Your task to perform on an android device: change the clock display to show seconds Image 0: 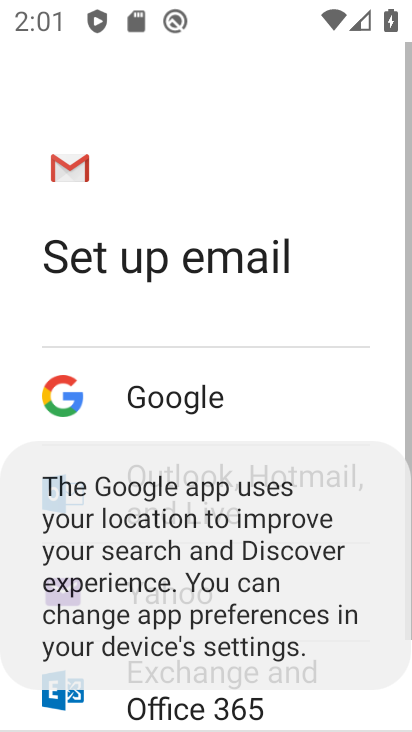
Step 0: press home button
Your task to perform on an android device: change the clock display to show seconds Image 1: 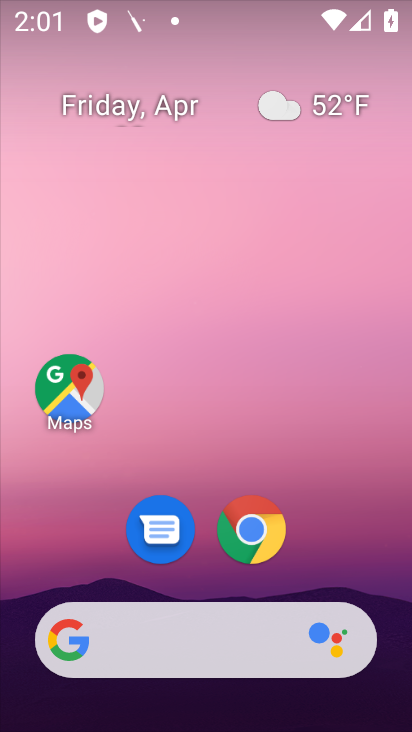
Step 1: drag from (209, 478) to (220, 189)
Your task to perform on an android device: change the clock display to show seconds Image 2: 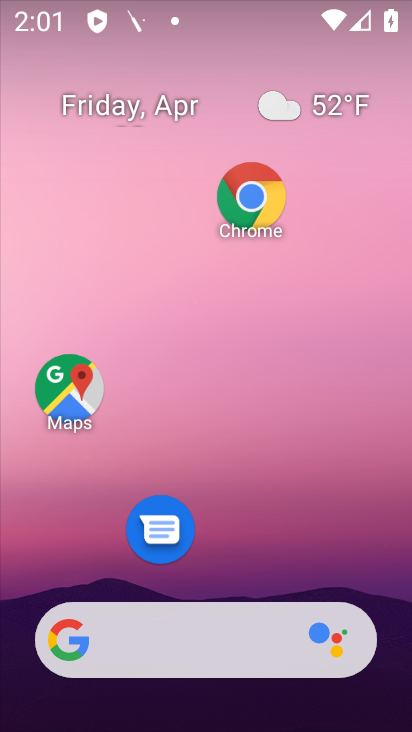
Step 2: drag from (215, 564) to (191, 148)
Your task to perform on an android device: change the clock display to show seconds Image 3: 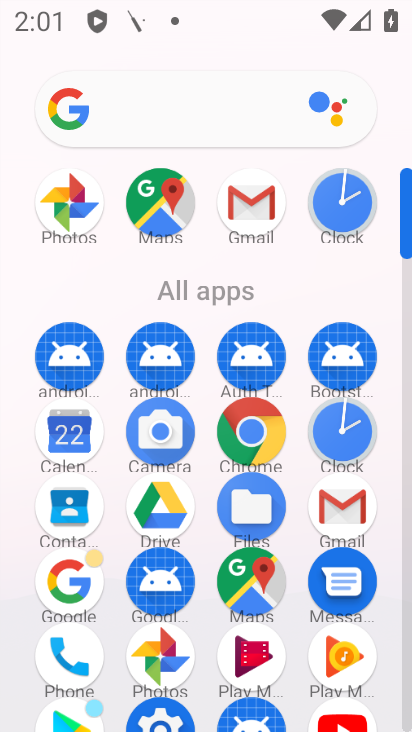
Step 3: click (341, 437)
Your task to perform on an android device: change the clock display to show seconds Image 4: 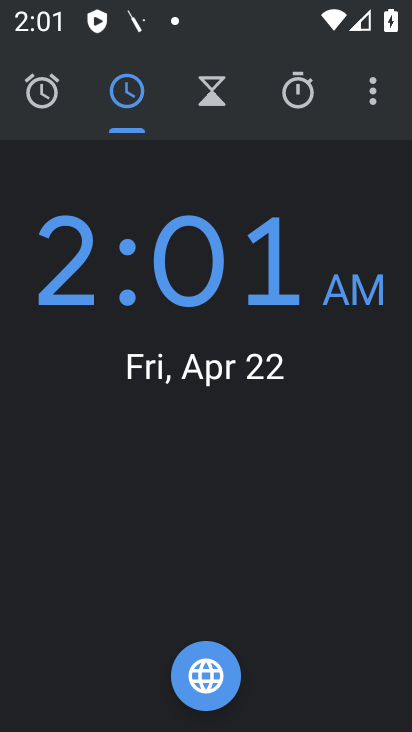
Step 4: click (374, 87)
Your task to perform on an android device: change the clock display to show seconds Image 5: 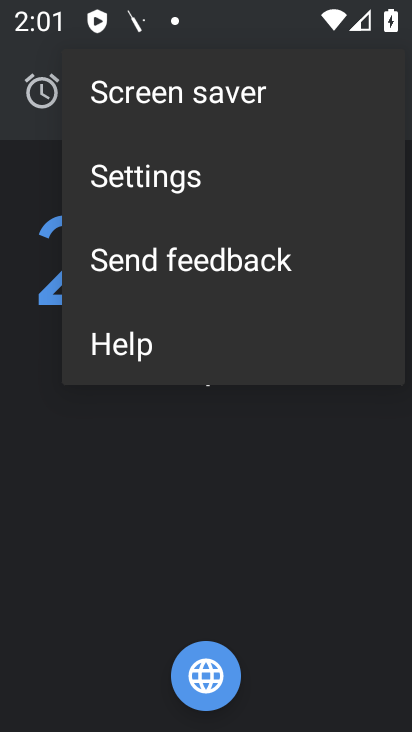
Step 5: click (194, 183)
Your task to perform on an android device: change the clock display to show seconds Image 6: 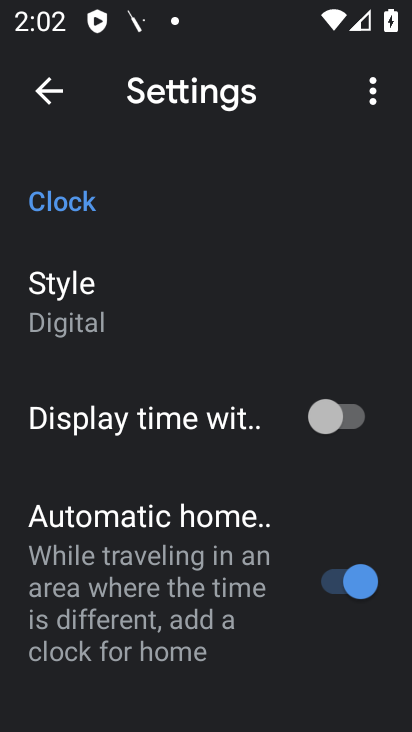
Step 6: click (353, 413)
Your task to perform on an android device: change the clock display to show seconds Image 7: 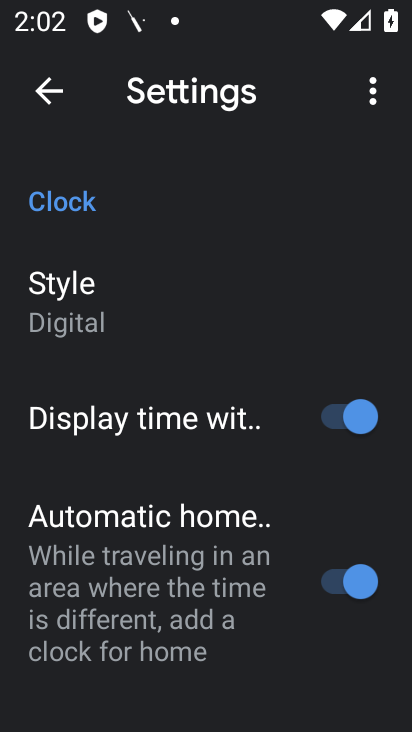
Step 7: task complete